Your task to perform on an android device: Open eBay Image 0: 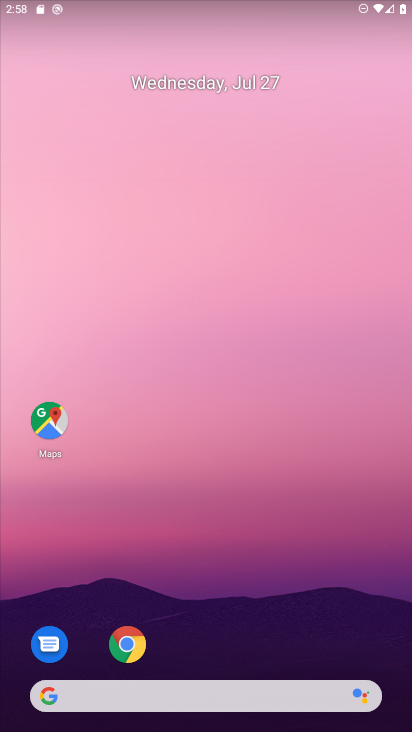
Step 0: drag from (200, 660) to (213, 1)
Your task to perform on an android device: Open eBay Image 1: 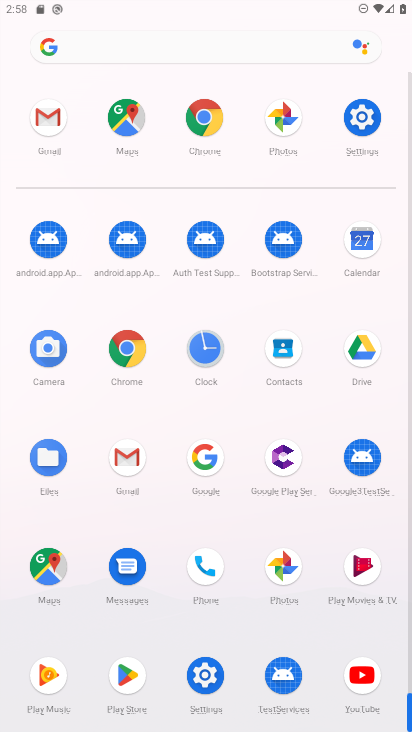
Step 1: click (127, 345)
Your task to perform on an android device: Open eBay Image 2: 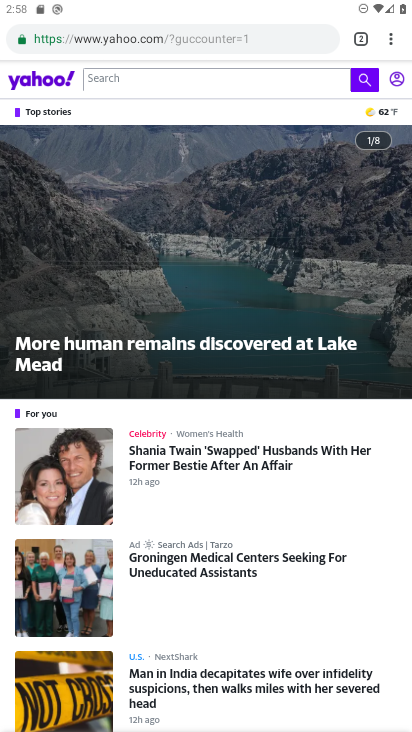
Step 2: click (171, 39)
Your task to perform on an android device: Open eBay Image 3: 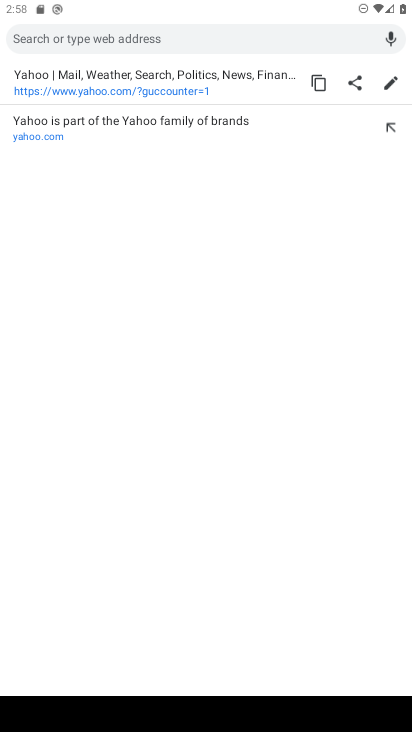
Step 3: type "eBay"
Your task to perform on an android device: Open eBay Image 4: 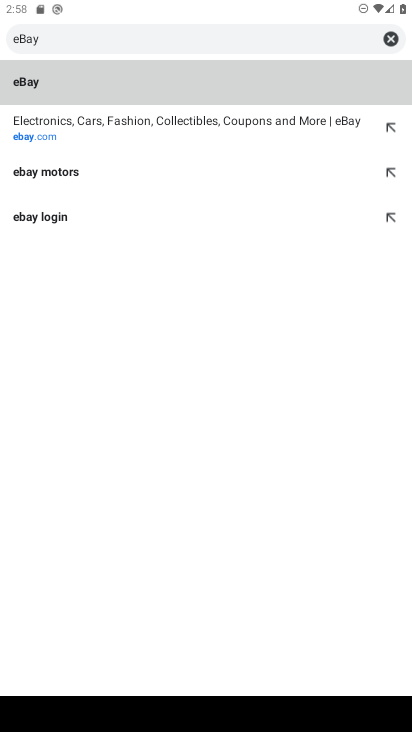
Step 4: click (79, 129)
Your task to perform on an android device: Open eBay Image 5: 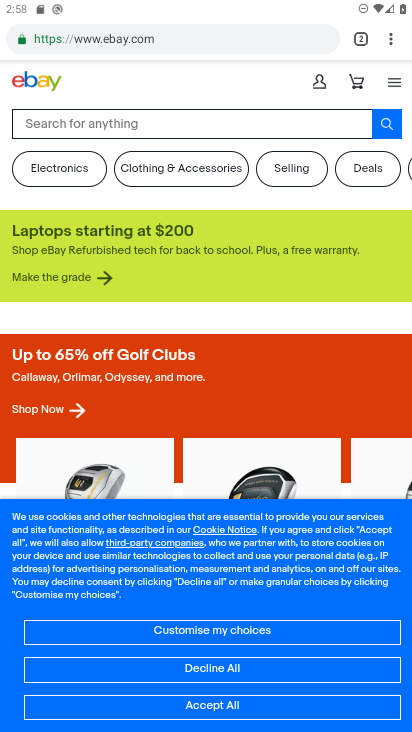
Step 5: task complete